Your task to perform on an android device: Open battery settings Image 0: 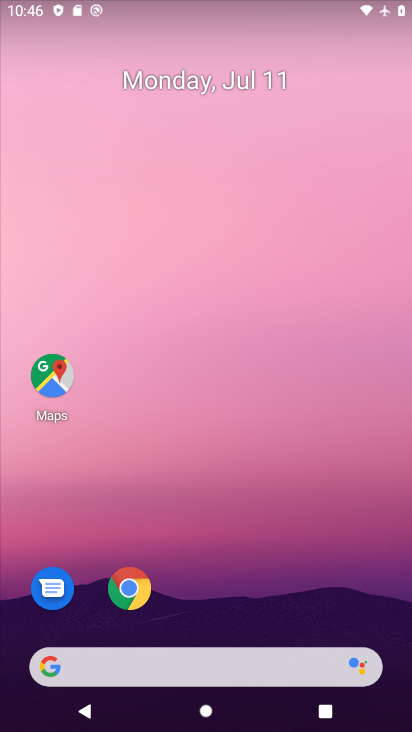
Step 0: click (385, 442)
Your task to perform on an android device: Open battery settings Image 1: 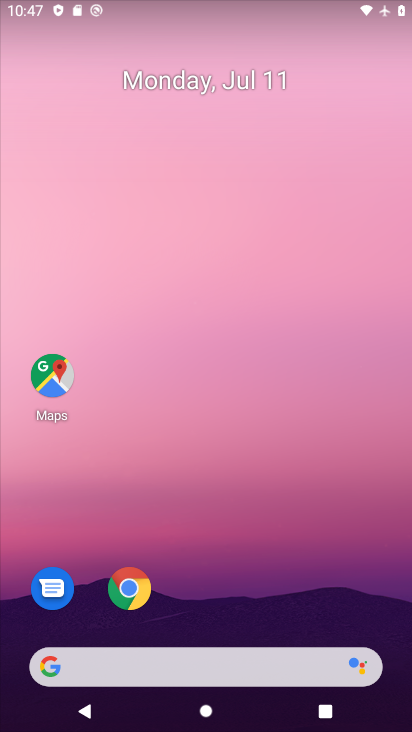
Step 1: drag from (187, 656) to (349, 7)
Your task to perform on an android device: Open battery settings Image 2: 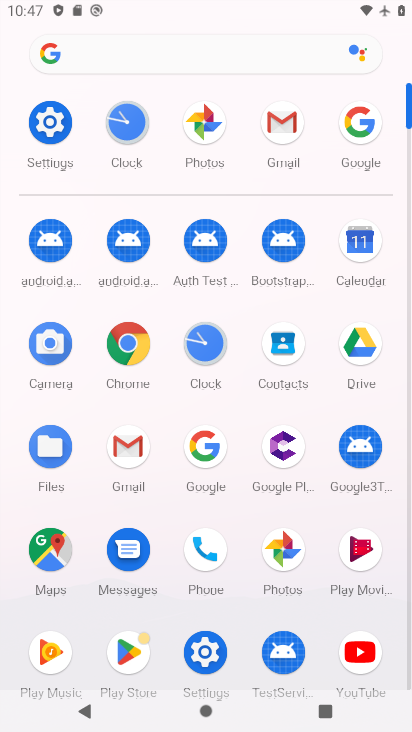
Step 2: click (57, 123)
Your task to perform on an android device: Open battery settings Image 3: 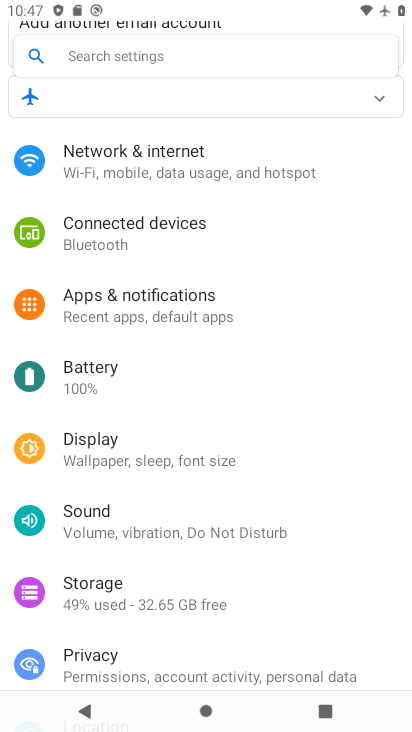
Step 3: click (78, 367)
Your task to perform on an android device: Open battery settings Image 4: 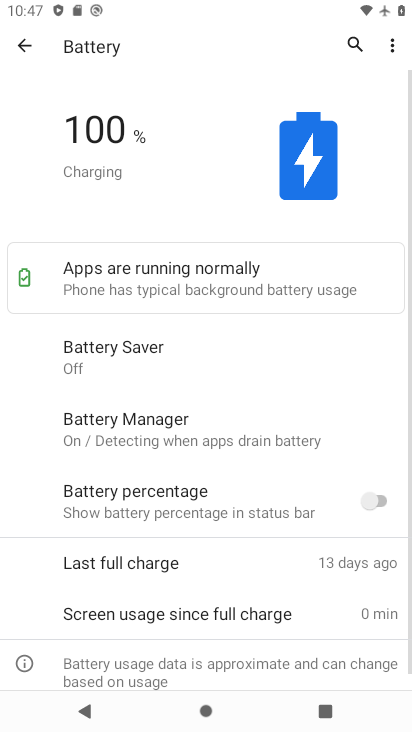
Step 4: task complete